Your task to perform on an android device: manage bookmarks in the chrome app Image 0: 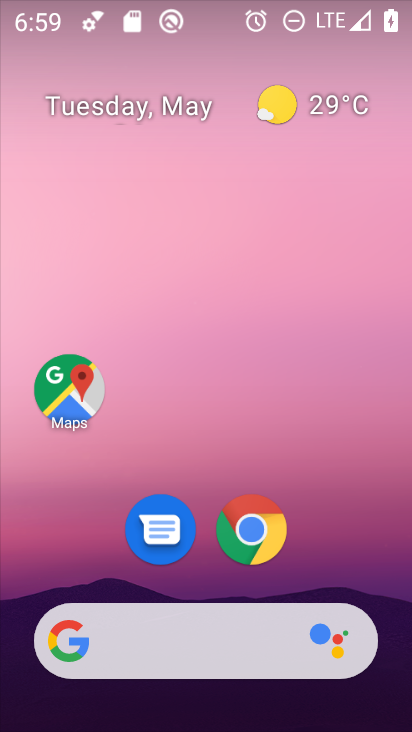
Step 0: drag from (397, 606) to (202, 29)
Your task to perform on an android device: manage bookmarks in the chrome app Image 1: 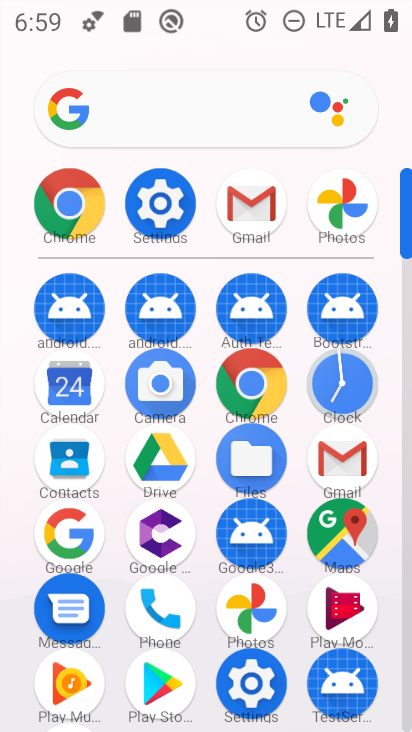
Step 1: click (251, 381)
Your task to perform on an android device: manage bookmarks in the chrome app Image 2: 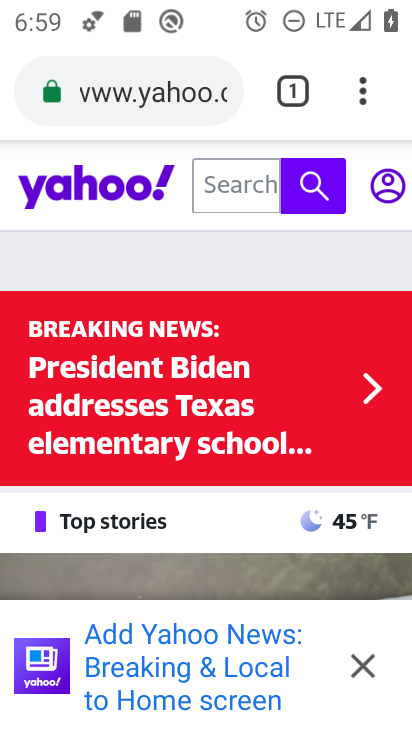
Step 2: press back button
Your task to perform on an android device: manage bookmarks in the chrome app Image 3: 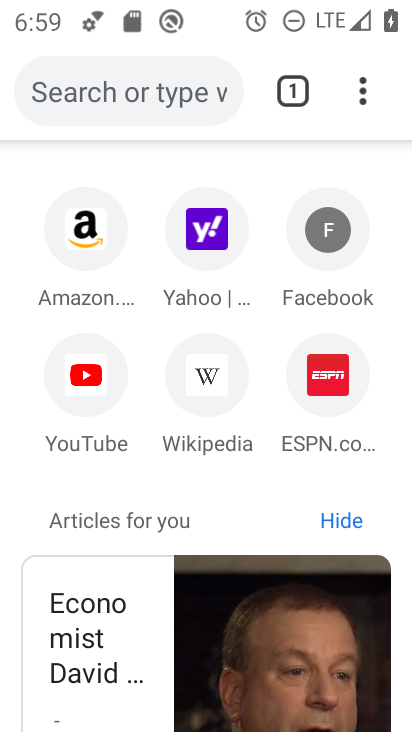
Step 3: click (368, 98)
Your task to perform on an android device: manage bookmarks in the chrome app Image 4: 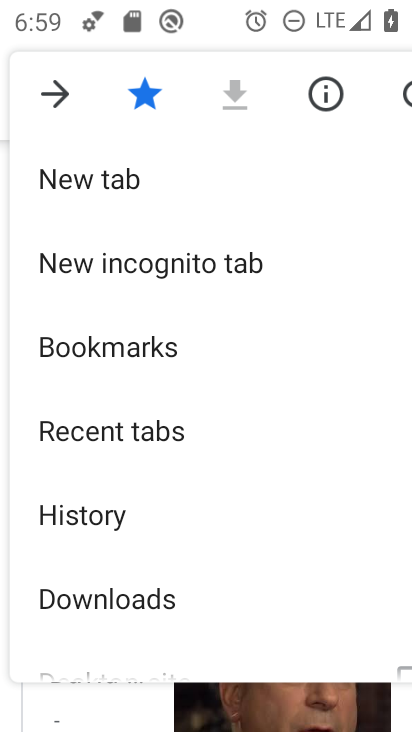
Step 4: click (124, 337)
Your task to perform on an android device: manage bookmarks in the chrome app Image 5: 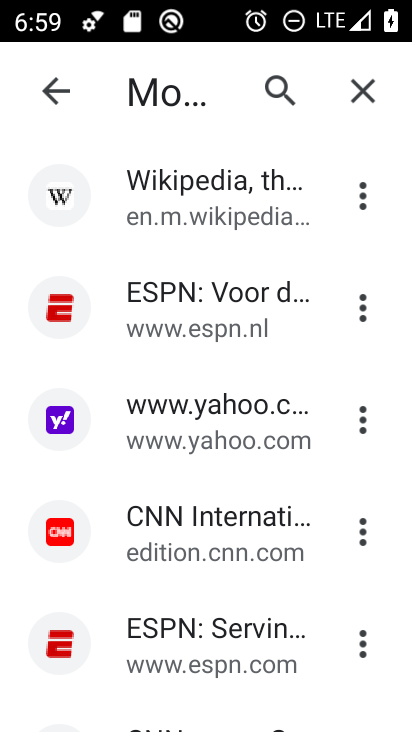
Step 5: task complete